Your task to perform on an android device: open app "Microsoft Excel" (install if not already installed) Image 0: 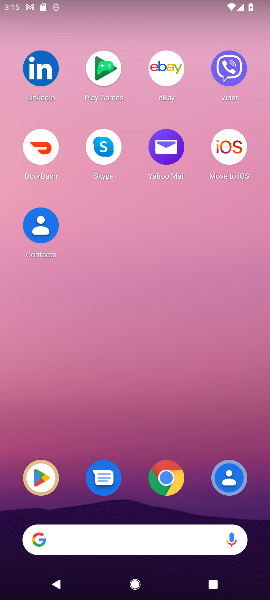
Step 0: drag from (151, 364) to (145, 22)
Your task to perform on an android device: open app "Microsoft Excel" (install if not already installed) Image 1: 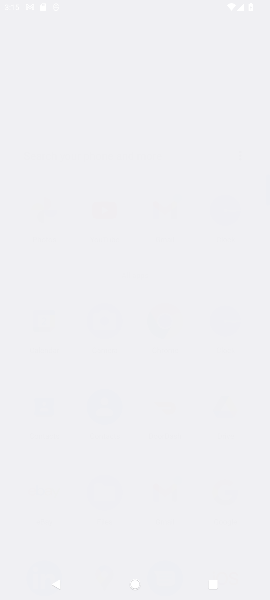
Step 1: drag from (212, 343) to (175, 30)
Your task to perform on an android device: open app "Microsoft Excel" (install if not already installed) Image 2: 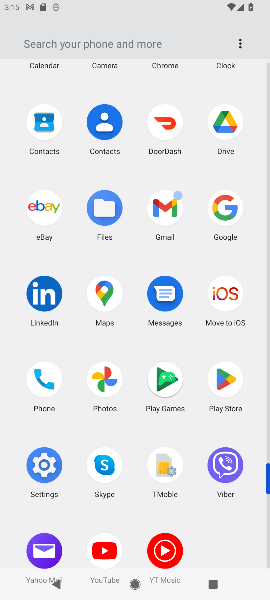
Step 2: drag from (189, 257) to (157, 54)
Your task to perform on an android device: open app "Microsoft Excel" (install if not already installed) Image 3: 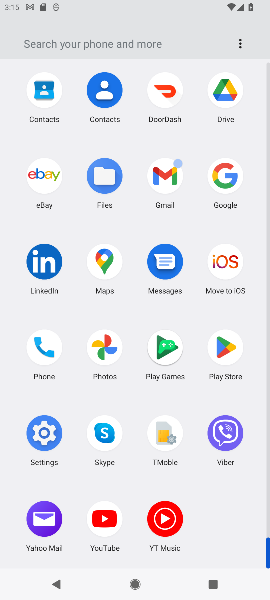
Step 3: click (220, 346)
Your task to perform on an android device: open app "Microsoft Excel" (install if not already installed) Image 4: 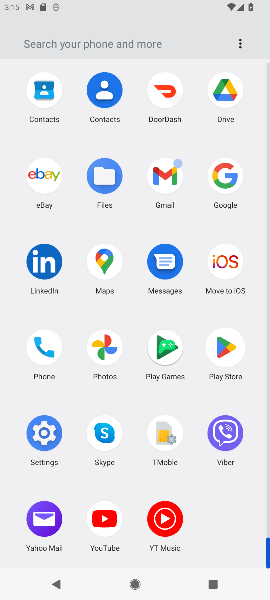
Step 4: click (220, 346)
Your task to perform on an android device: open app "Microsoft Excel" (install if not already installed) Image 5: 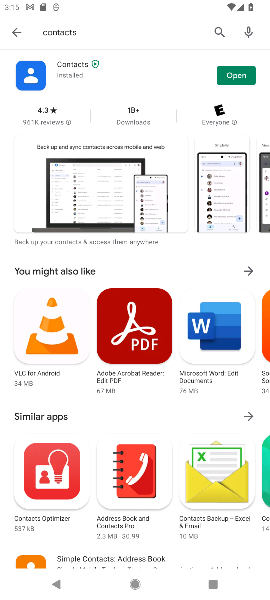
Step 5: click (14, 23)
Your task to perform on an android device: open app "Microsoft Excel" (install if not already installed) Image 6: 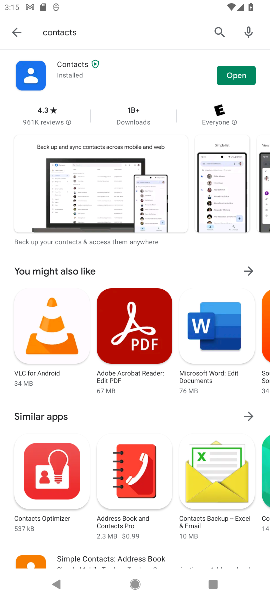
Step 6: click (12, 24)
Your task to perform on an android device: open app "Microsoft Excel" (install if not already installed) Image 7: 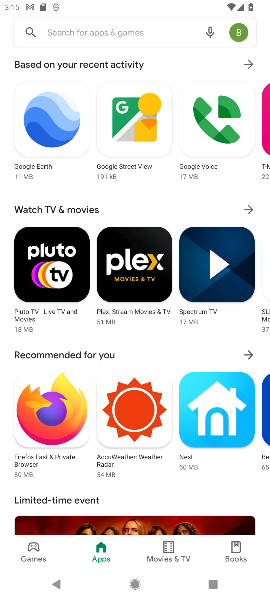
Step 7: click (58, 30)
Your task to perform on an android device: open app "Microsoft Excel" (install if not already installed) Image 8: 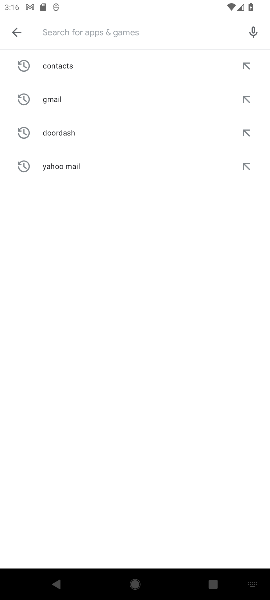
Step 8: type "microsoft excel"
Your task to perform on an android device: open app "Microsoft Excel" (install if not already installed) Image 9: 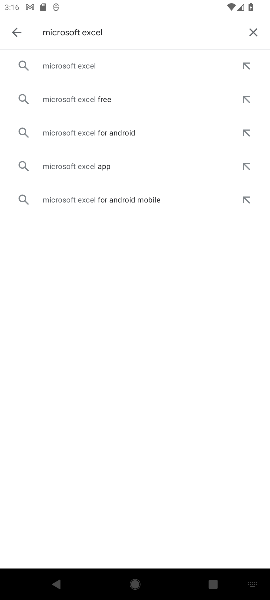
Step 9: click (247, 65)
Your task to perform on an android device: open app "Microsoft Excel" (install if not already installed) Image 10: 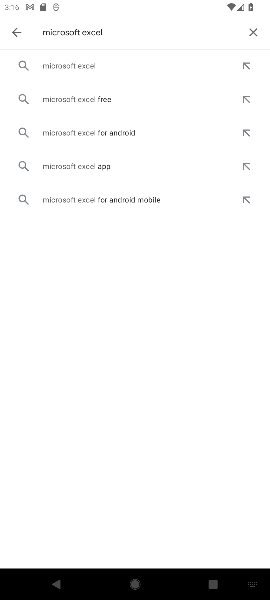
Step 10: click (247, 65)
Your task to perform on an android device: open app "Microsoft Excel" (install if not already installed) Image 11: 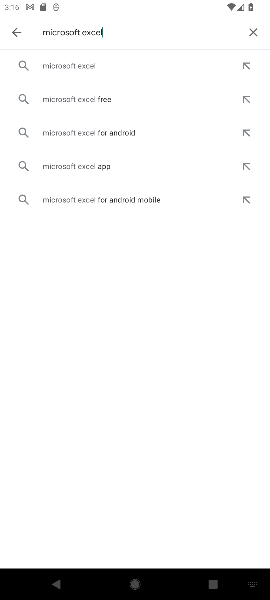
Step 11: click (248, 64)
Your task to perform on an android device: open app "Microsoft Excel" (install if not already installed) Image 12: 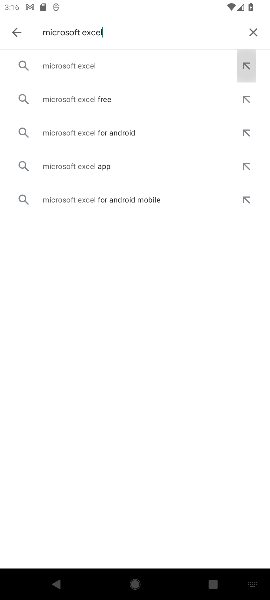
Step 12: click (249, 66)
Your task to perform on an android device: open app "Microsoft Excel" (install if not already installed) Image 13: 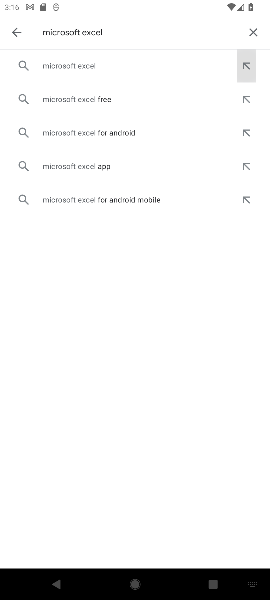
Step 13: click (249, 66)
Your task to perform on an android device: open app "Microsoft Excel" (install if not already installed) Image 14: 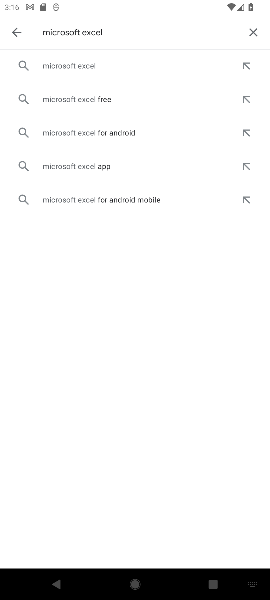
Step 14: click (71, 68)
Your task to perform on an android device: open app "Microsoft Excel" (install if not already installed) Image 15: 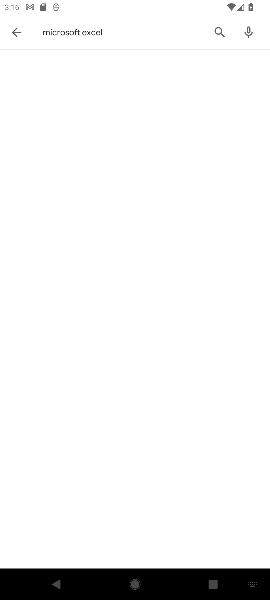
Step 15: click (71, 67)
Your task to perform on an android device: open app "Microsoft Excel" (install if not already installed) Image 16: 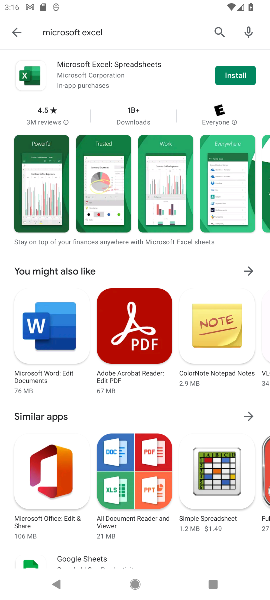
Step 16: click (229, 74)
Your task to perform on an android device: open app "Microsoft Excel" (install if not already installed) Image 17: 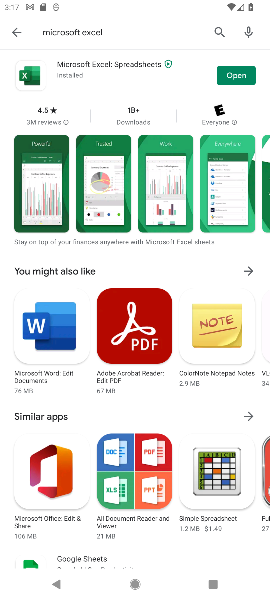
Step 17: click (12, 29)
Your task to perform on an android device: open app "Microsoft Excel" (install if not already installed) Image 18: 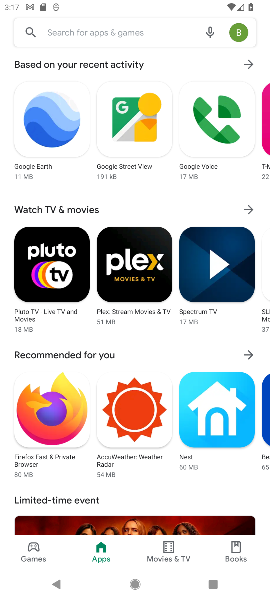
Step 18: click (73, 32)
Your task to perform on an android device: open app "Microsoft Excel" (install if not already installed) Image 19: 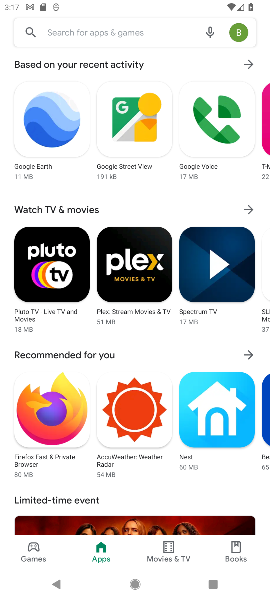
Step 19: click (73, 32)
Your task to perform on an android device: open app "Microsoft Excel" (install if not already installed) Image 20: 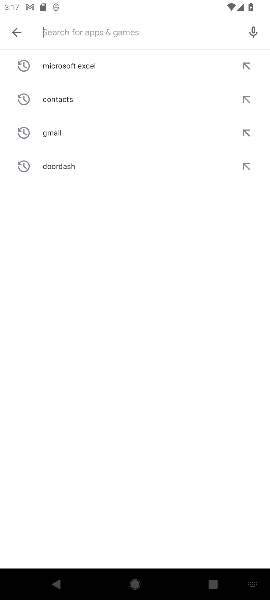
Step 20: click (83, 70)
Your task to perform on an android device: open app "Microsoft Excel" (install if not already installed) Image 21: 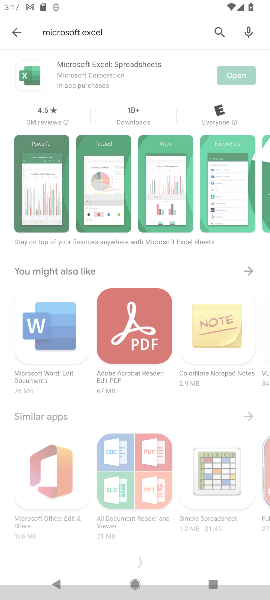
Step 21: click (82, 67)
Your task to perform on an android device: open app "Microsoft Excel" (install if not already installed) Image 22: 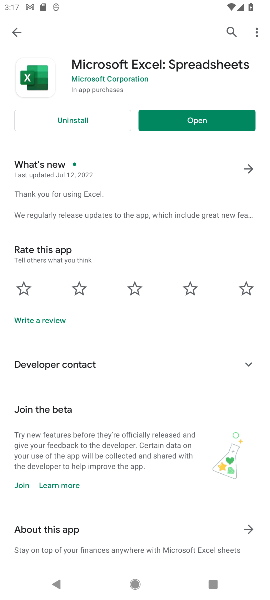
Step 22: click (195, 120)
Your task to perform on an android device: open app "Microsoft Excel" (install if not already installed) Image 23: 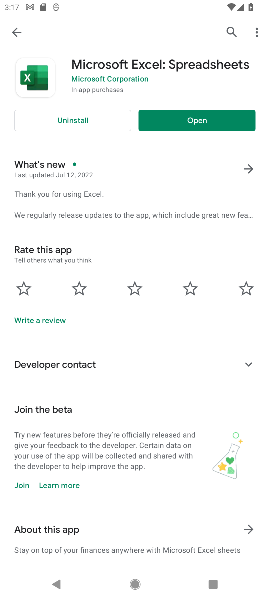
Step 23: click (195, 120)
Your task to perform on an android device: open app "Microsoft Excel" (install if not already installed) Image 24: 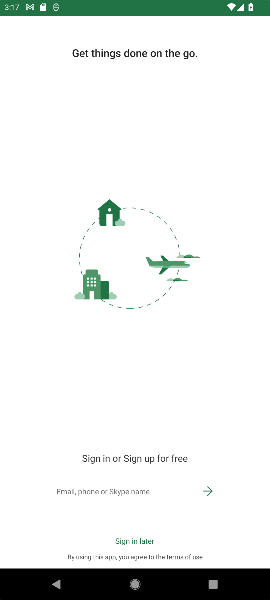
Step 24: task complete